Your task to perform on an android device: turn on data saver in the chrome app Image 0: 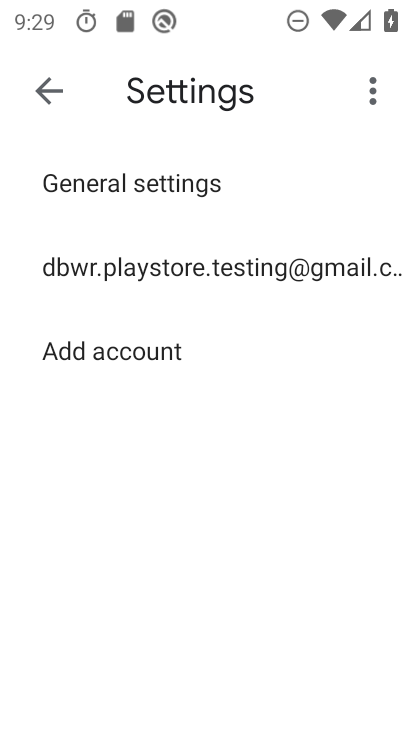
Step 0: press home button
Your task to perform on an android device: turn on data saver in the chrome app Image 1: 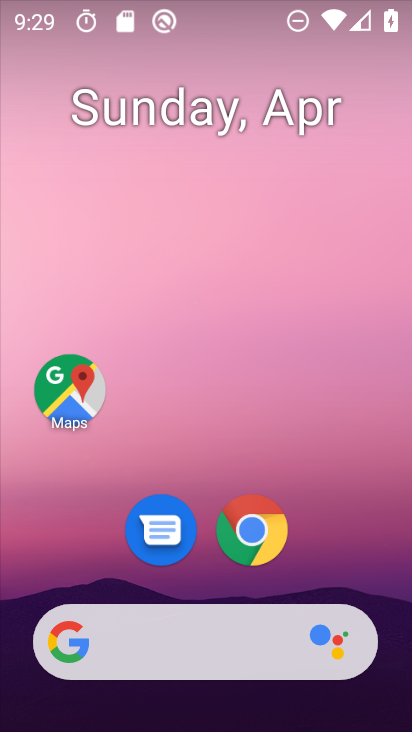
Step 1: click (249, 529)
Your task to perform on an android device: turn on data saver in the chrome app Image 2: 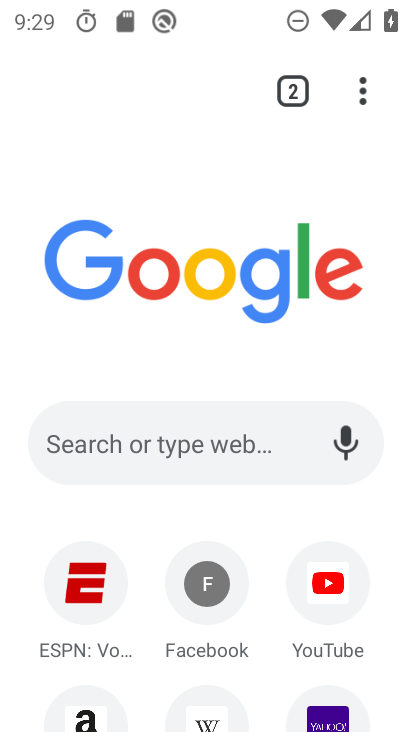
Step 2: drag from (364, 94) to (105, 548)
Your task to perform on an android device: turn on data saver in the chrome app Image 3: 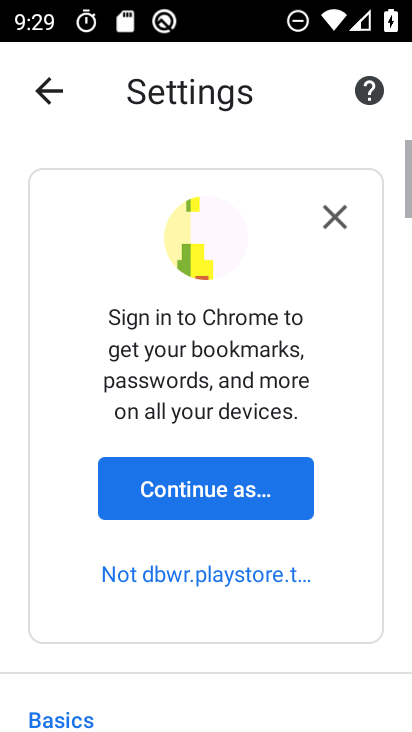
Step 3: drag from (179, 632) to (135, 91)
Your task to perform on an android device: turn on data saver in the chrome app Image 4: 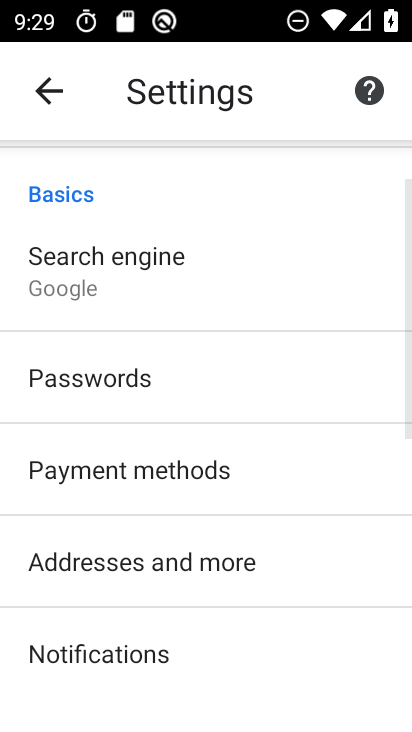
Step 4: drag from (110, 592) to (111, 100)
Your task to perform on an android device: turn on data saver in the chrome app Image 5: 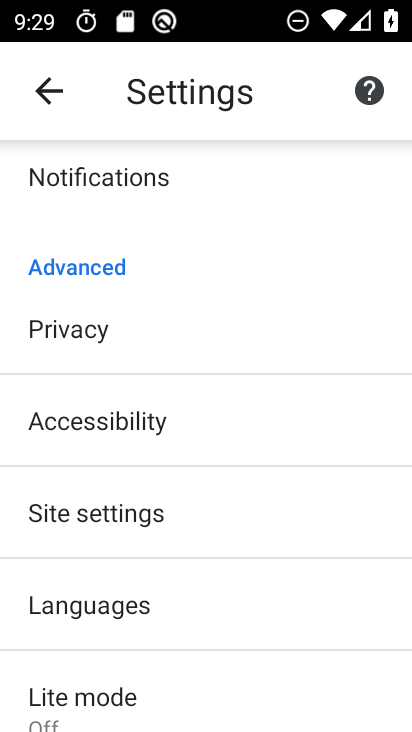
Step 5: click (82, 701)
Your task to perform on an android device: turn on data saver in the chrome app Image 6: 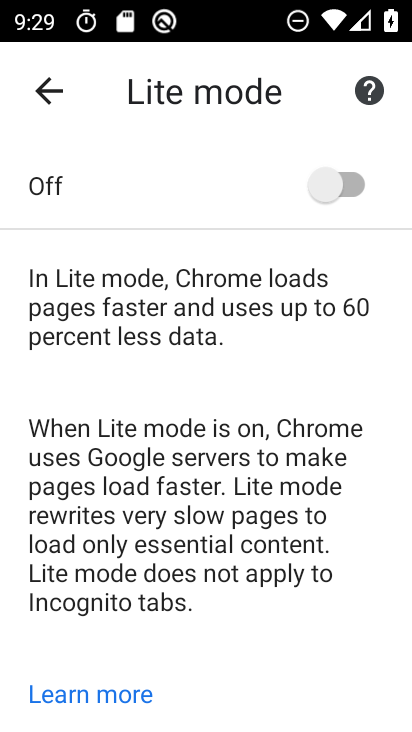
Step 6: click (327, 190)
Your task to perform on an android device: turn on data saver in the chrome app Image 7: 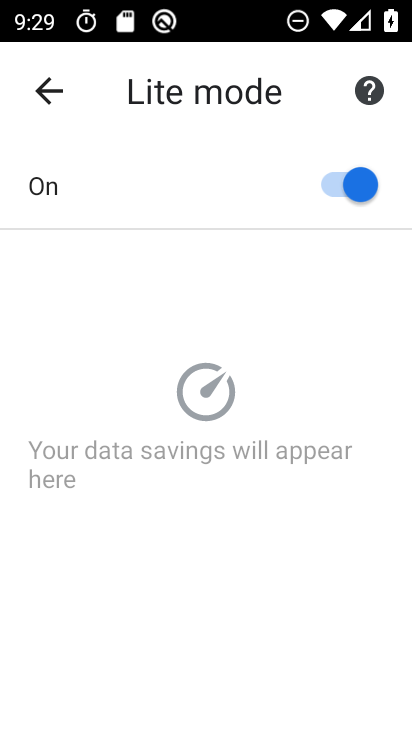
Step 7: task complete